Your task to perform on an android device: move an email to a new category in the gmail app Image 0: 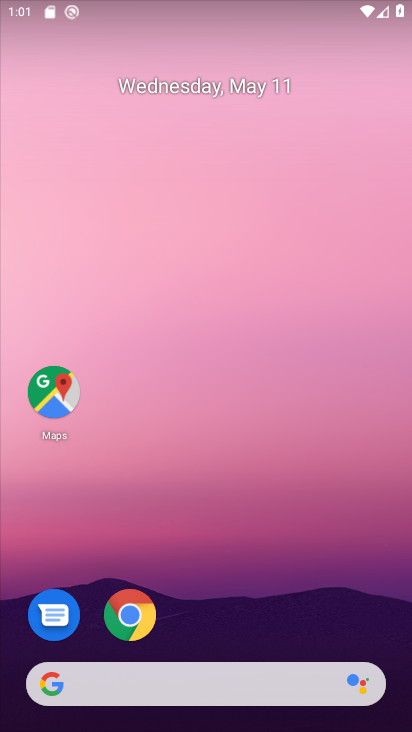
Step 0: drag from (304, 596) to (333, 130)
Your task to perform on an android device: move an email to a new category in the gmail app Image 1: 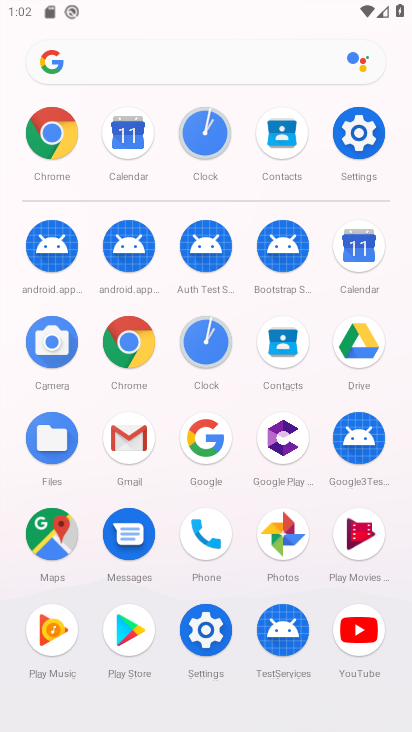
Step 1: click (115, 445)
Your task to perform on an android device: move an email to a new category in the gmail app Image 2: 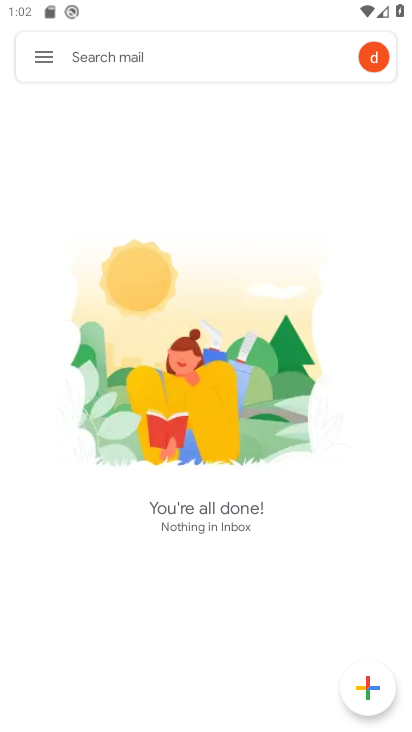
Step 2: click (47, 52)
Your task to perform on an android device: move an email to a new category in the gmail app Image 3: 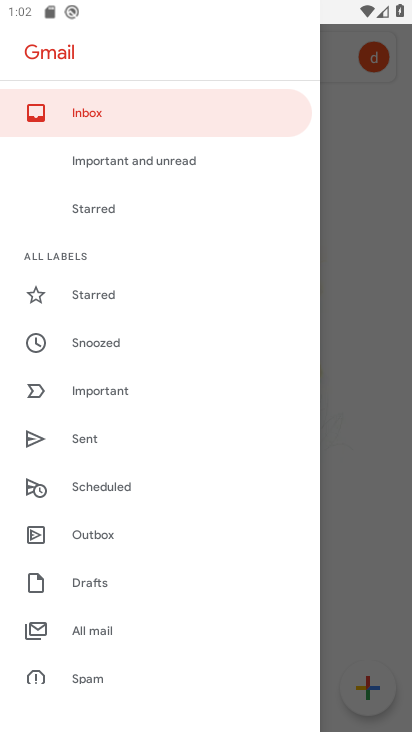
Step 3: click (98, 624)
Your task to perform on an android device: move an email to a new category in the gmail app Image 4: 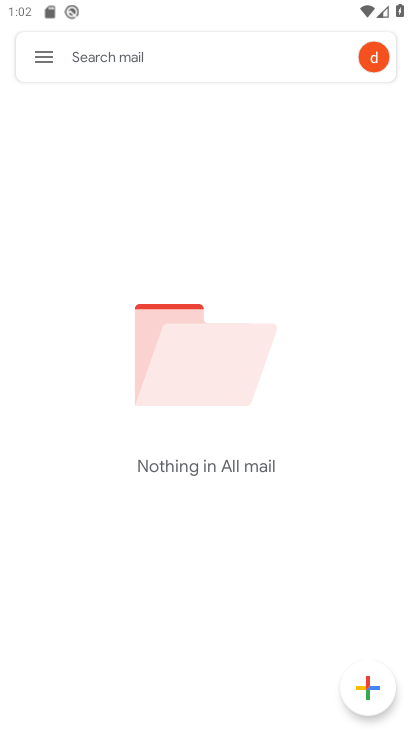
Step 4: task complete